Your task to perform on an android device: Go to CNN.com Image 0: 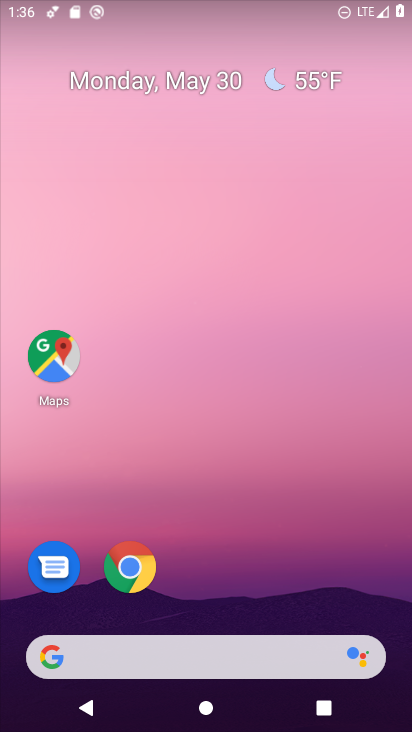
Step 0: click (131, 562)
Your task to perform on an android device: Go to CNN.com Image 1: 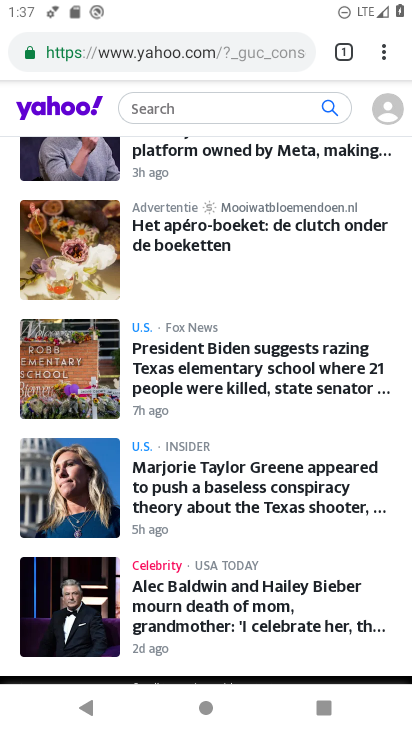
Step 1: click (339, 42)
Your task to perform on an android device: Go to CNN.com Image 2: 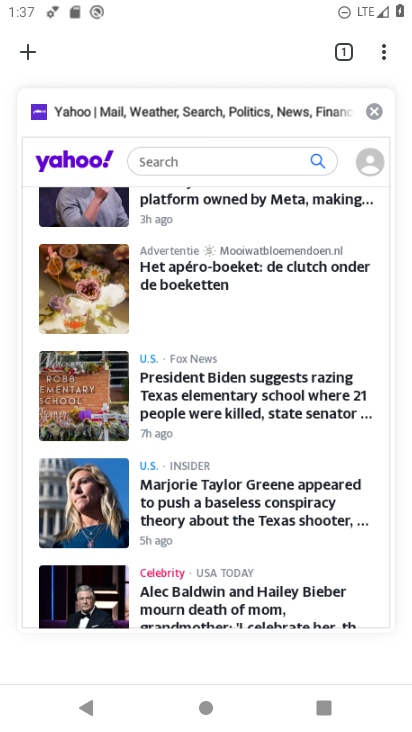
Step 2: click (373, 106)
Your task to perform on an android device: Go to CNN.com Image 3: 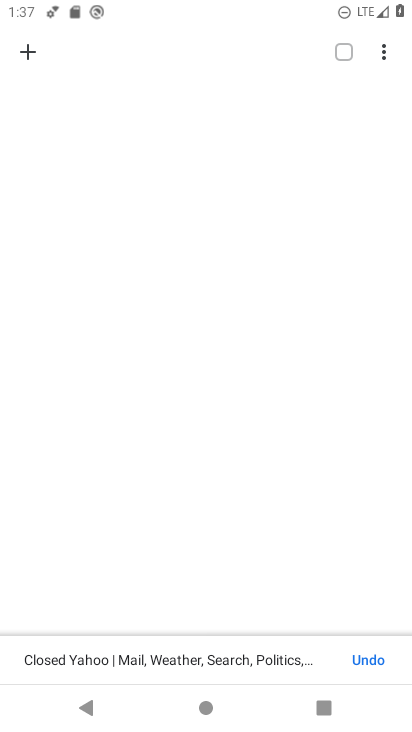
Step 3: click (27, 49)
Your task to perform on an android device: Go to CNN.com Image 4: 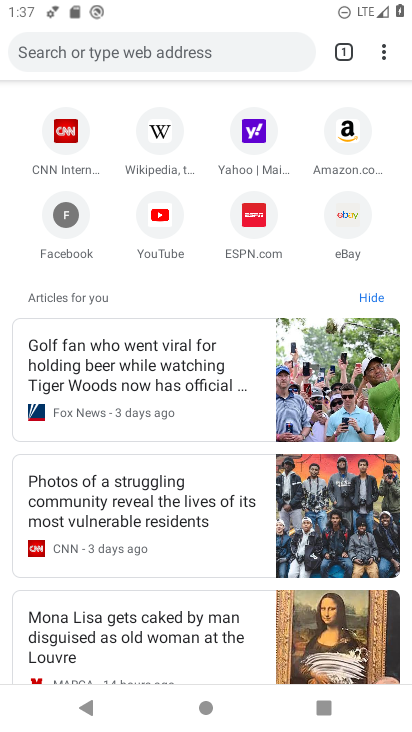
Step 4: click (67, 132)
Your task to perform on an android device: Go to CNN.com Image 5: 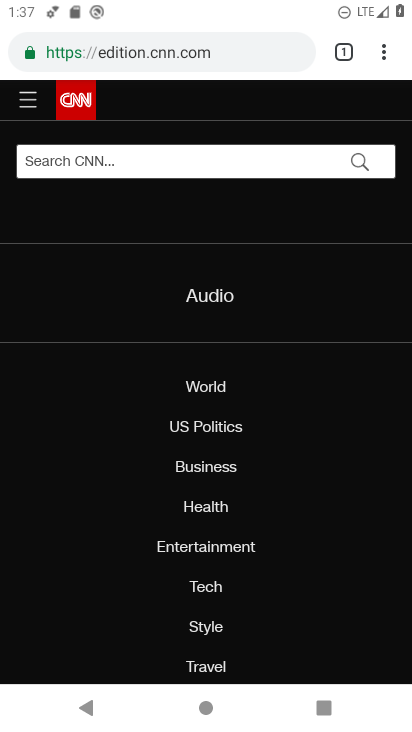
Step 5: drag from (266, 622) to (286, 215)
Your task to perform on an android device: Go to CNN.com Image 6: 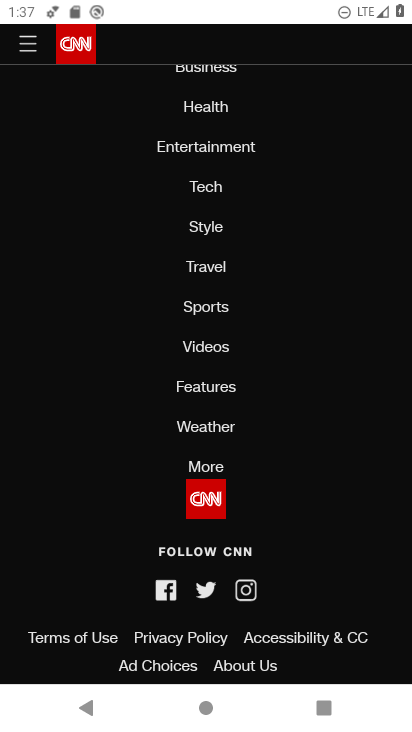
Step 6: click (226, 263)
Your task to perform on an android device: Go to CNN.com Image 7: 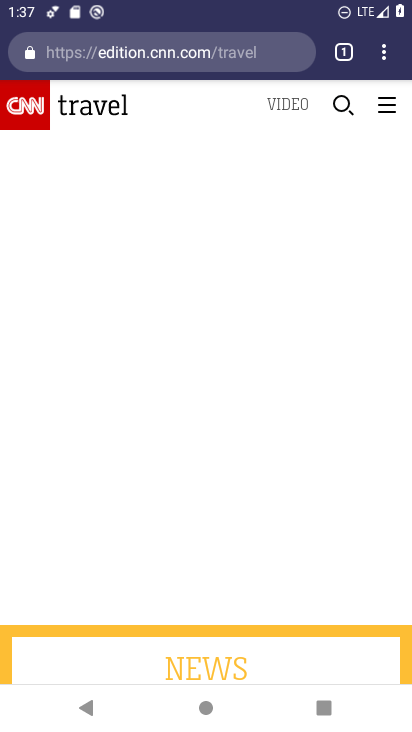
Step 7: task complete